Your task to perform on an android device: Add "sony triple a" to the cart on ebay, then select checkout. Image 0: 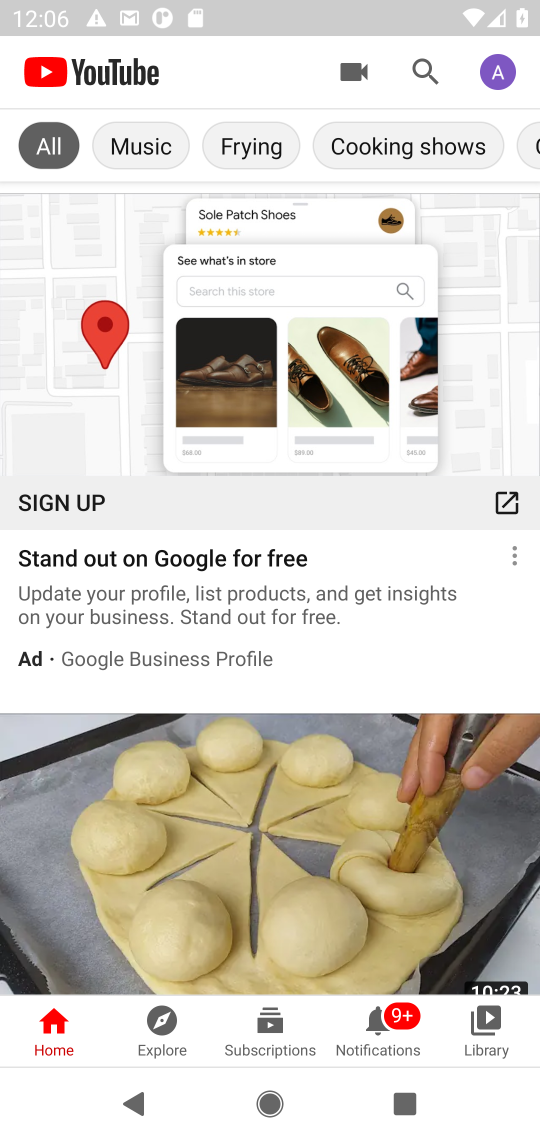
Step 0: press home button
Your task to perform on an android device: Add "sony triple a" to the cart on ebay, then select checkout. Image 1: 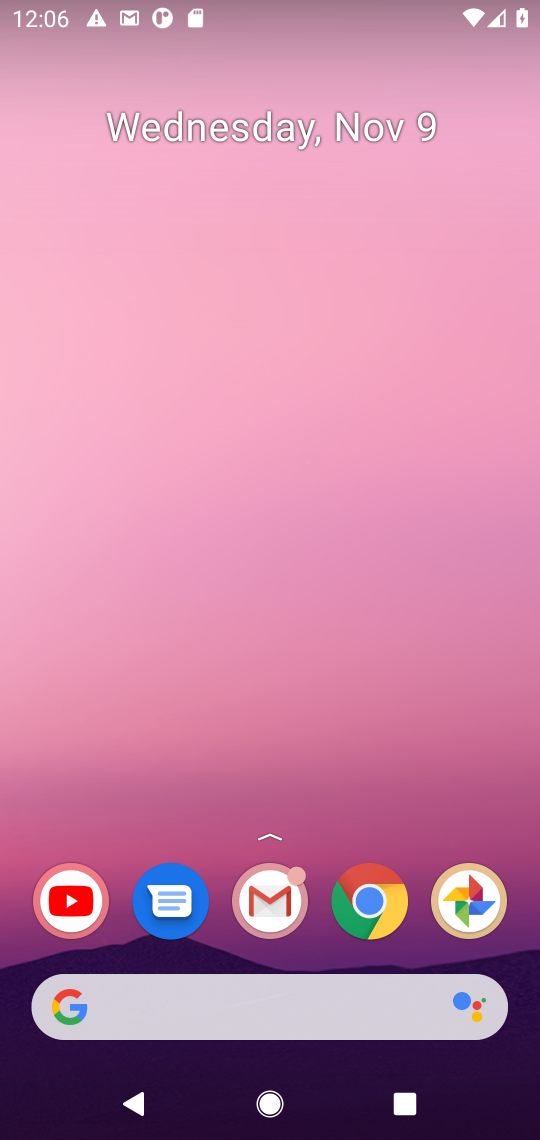
Step 1: click (370, 892)
Your task to perform on an android device: Add "sony triple a" to the cart on ebay, then select checkout. Image 2: 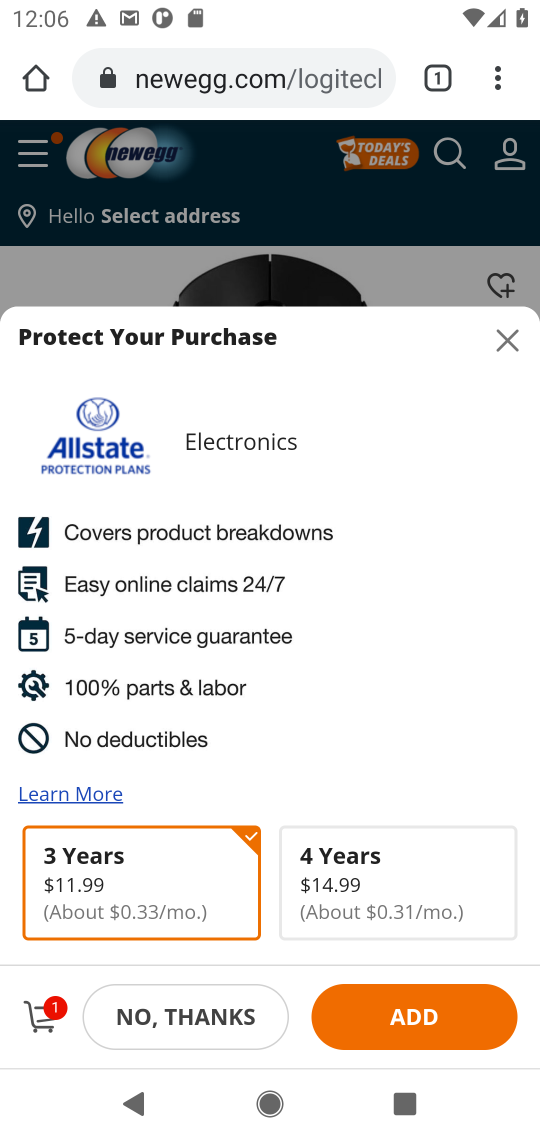
Step 2: click (179, 74)
Your task to perform on an android device: Add "sony triple a" to the cart on ebay, then select checkout. Image 3: 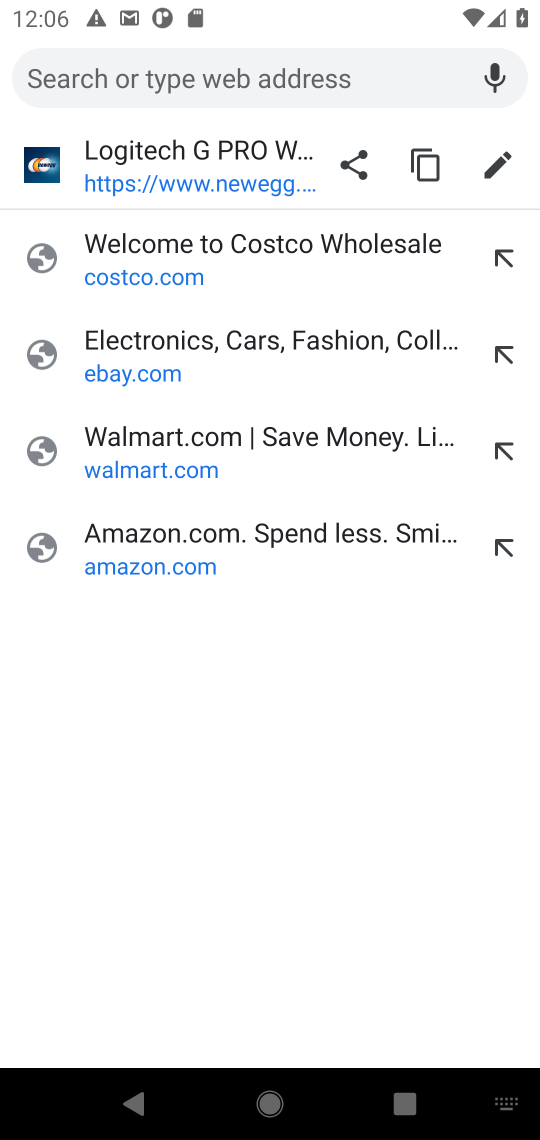
Step 3: click (216, 328)
Your task to perform on an android device: Add "sony triple a" to the cart on ebay, then select checkout. Image 4: 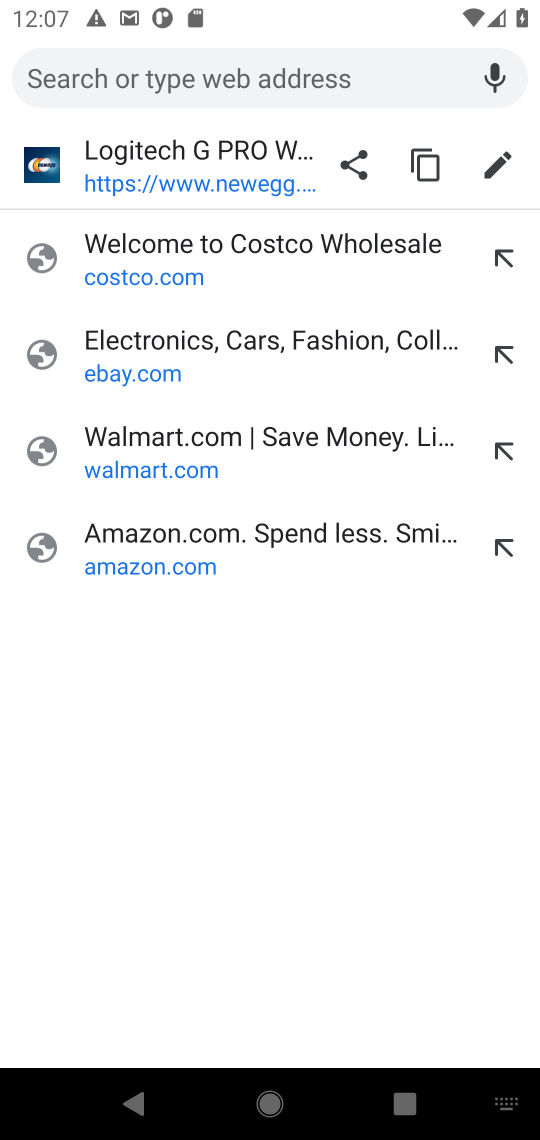
Step 4: click (200, 339)
Your task to perform on an android device: Add "sony triple a" to the cart on ebay, then select checkout. Image 5: 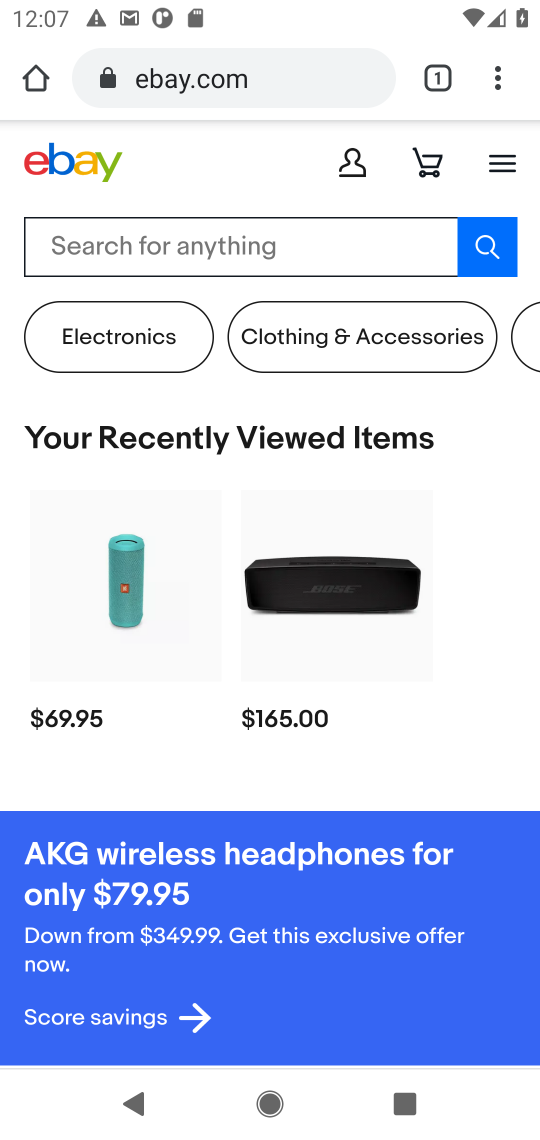
Step 5: click (238, 238)
Your task to perform on an android device: Add "sony triple a" to the cart on ebay, then select checkout. Image 6: 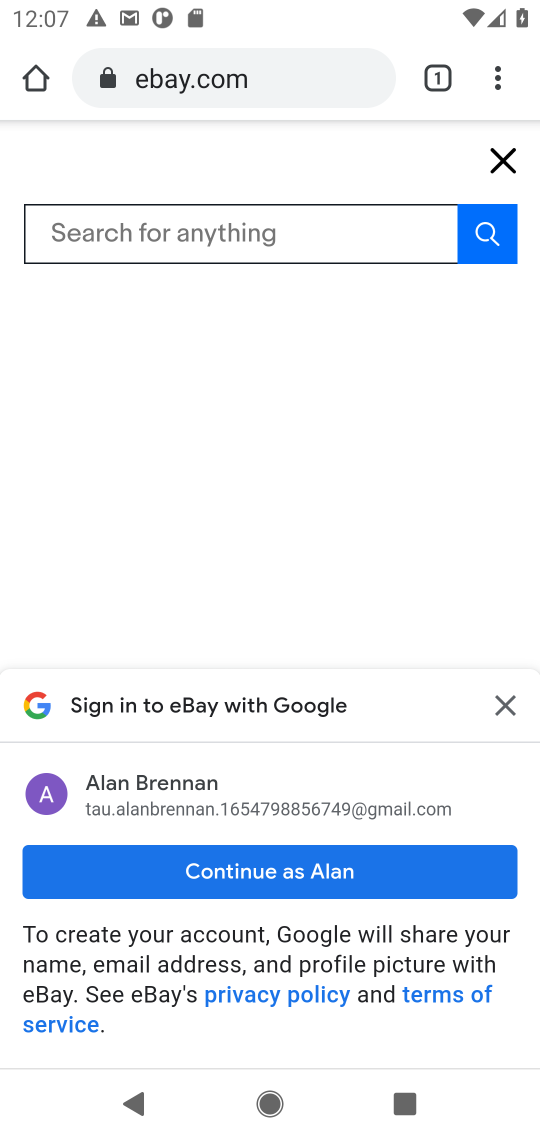
Step 6: click (383, 231)
Your task to perform on an android device: Add "sony triple a" to the cart on ebay, then select checkout. Image 7: 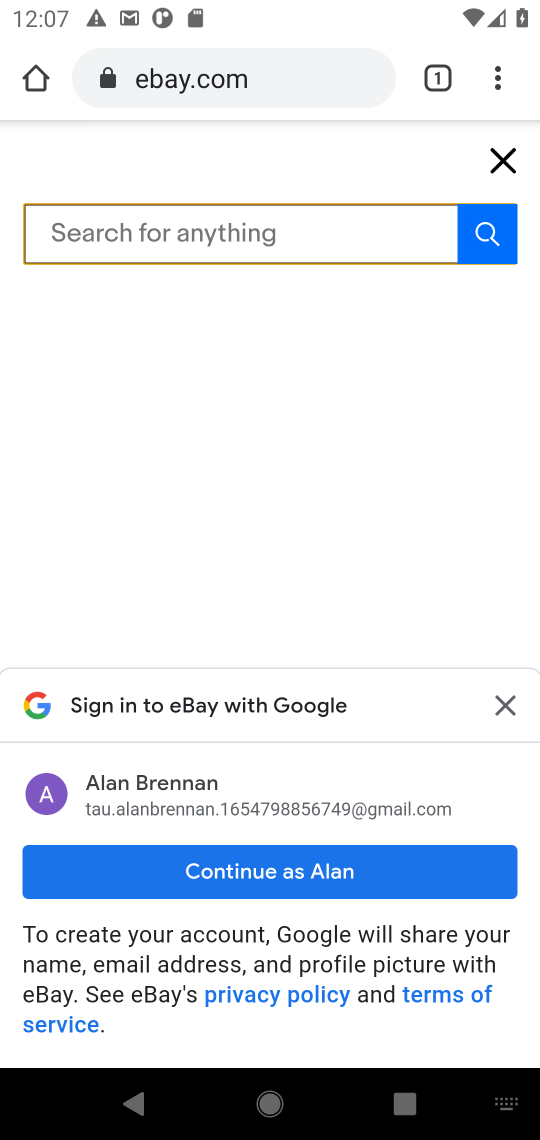
Step 7: type "sony triple a"
Your task to perform on an android device: Add "sony triple a" to the cart on ebay, then select checkout. Image 8: 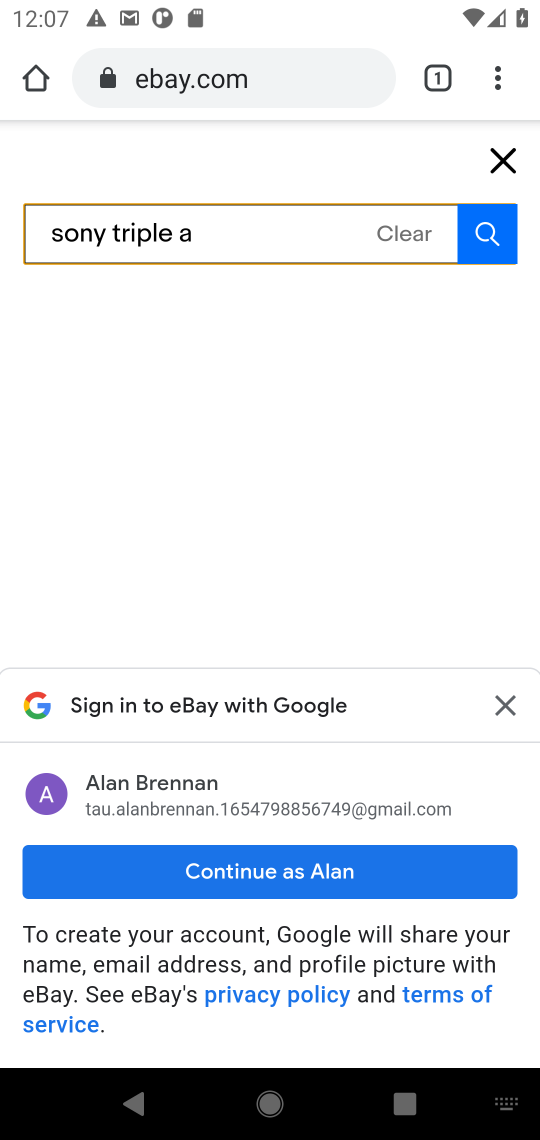
Step 8: click (517, 694)
Your task to perform on an android device: Add "sony triple a" to the cart on ebay, then select checkout. Image 9: 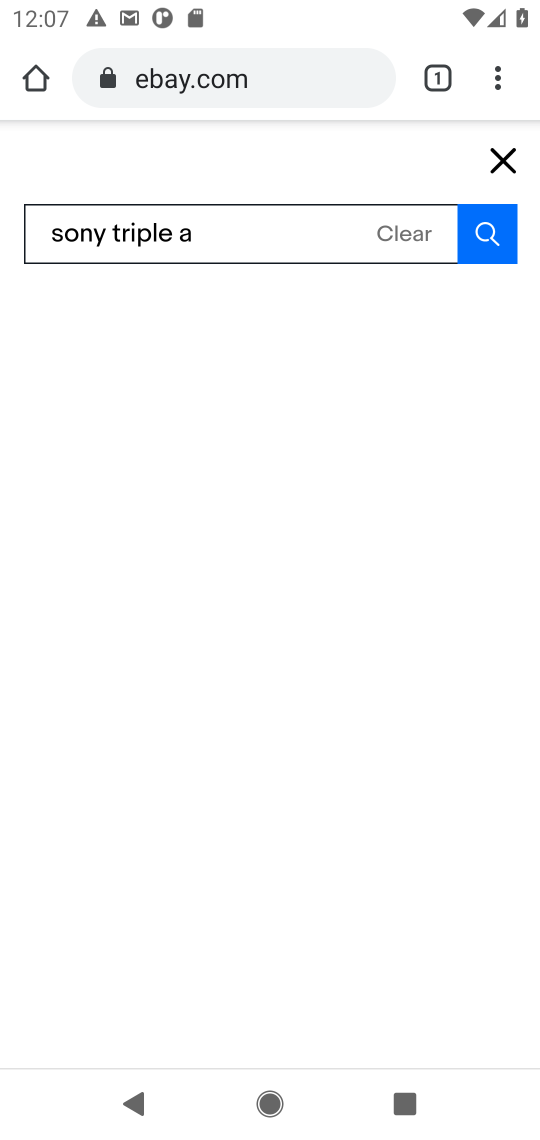
Step 9: click (526, 488)
Your task to perform on an android device: Add "sony triple a" to the cart on ebay, then select checkout. Image 10: 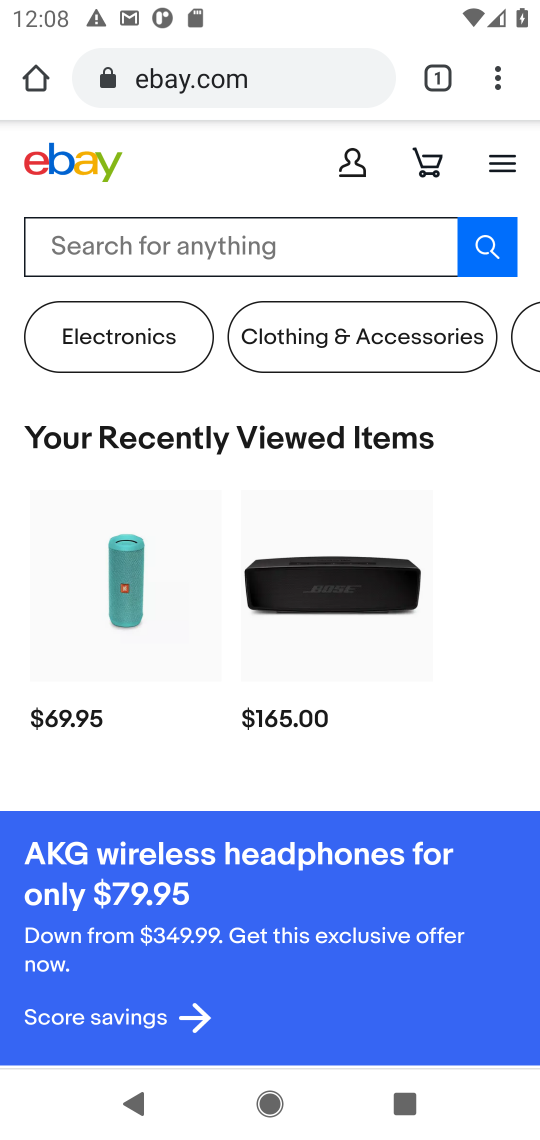
Step 10: task complete